Your task to perform on an android device: turn off location Image 0: 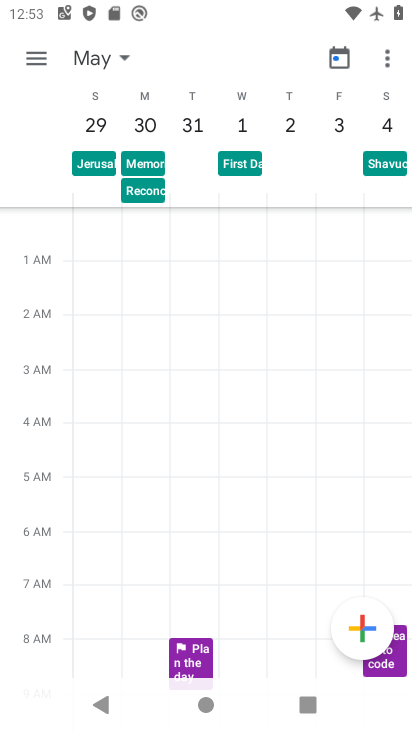
Step 0: press home button
Your task to perform on an android device: turn off location Image 1: 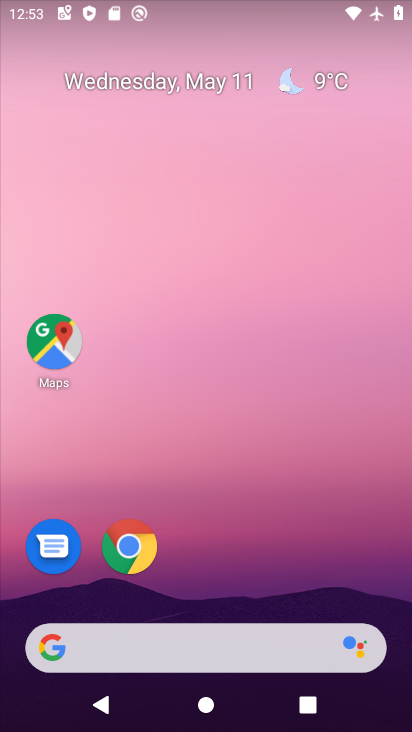
Step 1: drag from (277, 571) to (227, 61)
Your task to perform on an android device: turn off location Image 2: 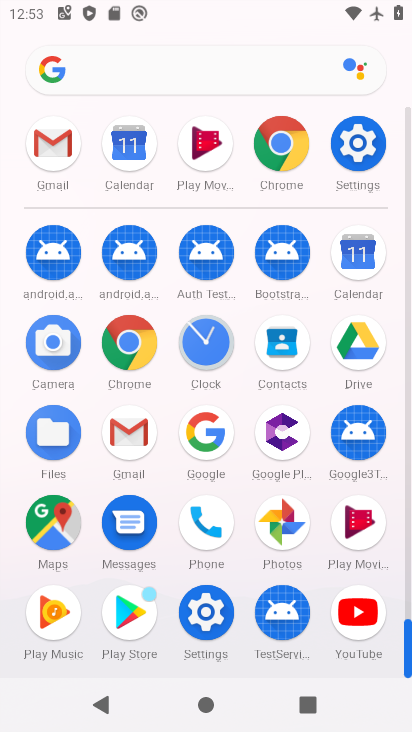
Step 2: click (359, 126)
Your task to perform on an android device: turn off location Image 3: 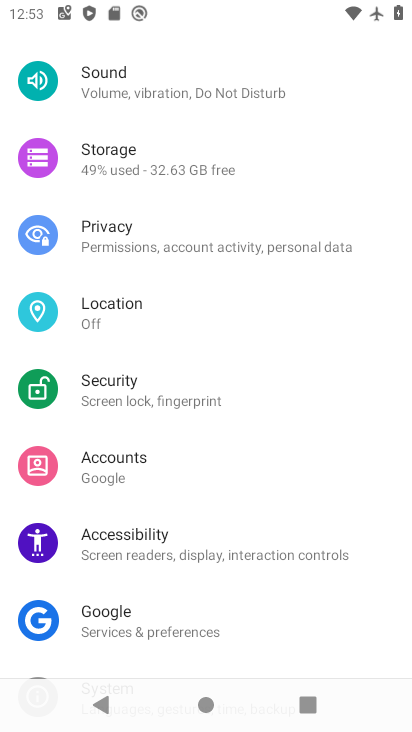
Step 3: click (162, 321)
Your task to perform on an android device: turn off location Image 4: 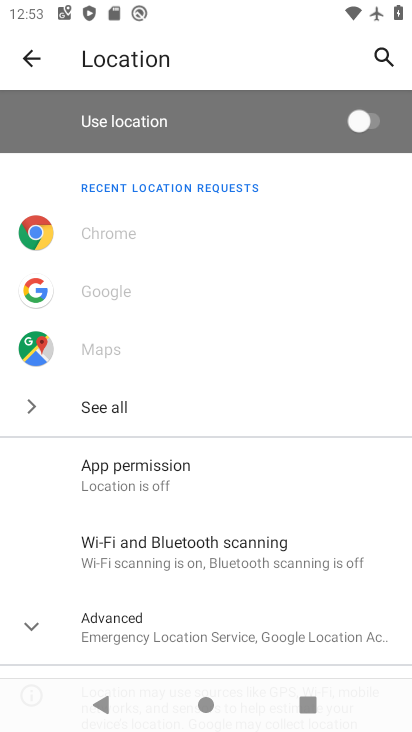
Step 4: task complete